Your task to perform on an android device: turn on improve location accuracy Image 0: 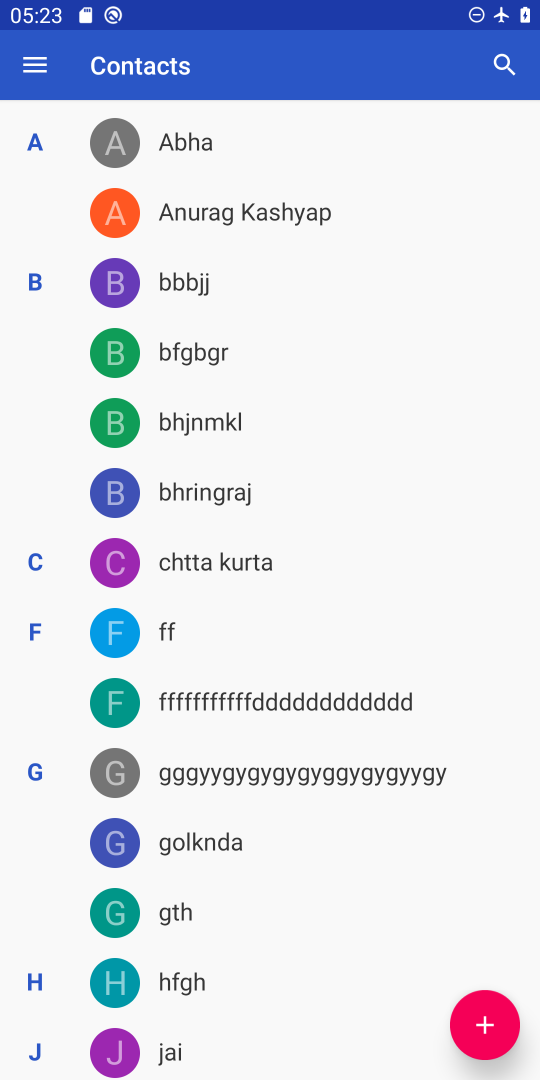
Step 0: press home button
Your task to perform on an android device: turn on improve location accuracy Image 1: 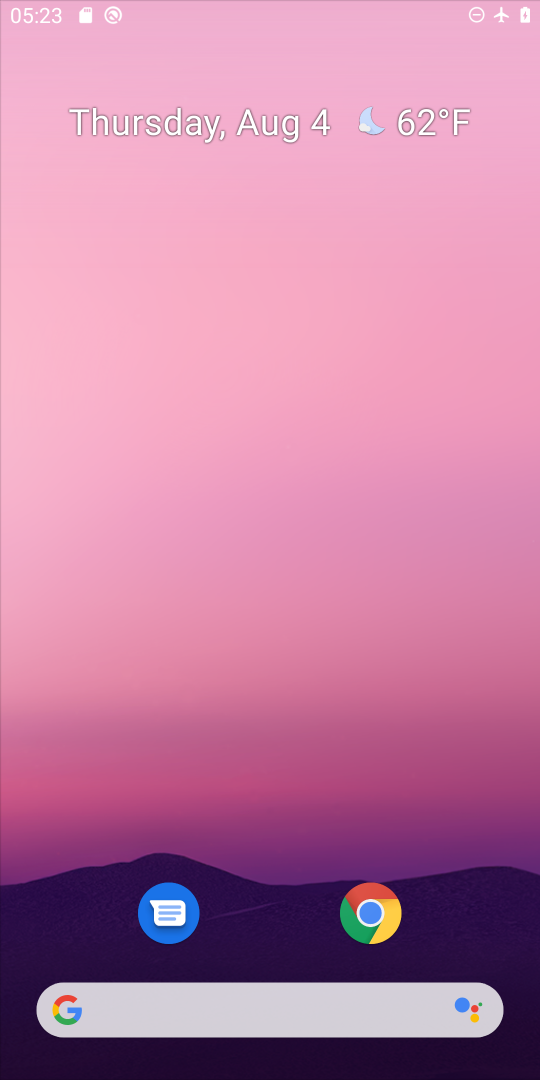
Step 1: drag from (309, 985) to (463, 13)
Your task to perform on an android device: turn on improve location accuracy Image 2: 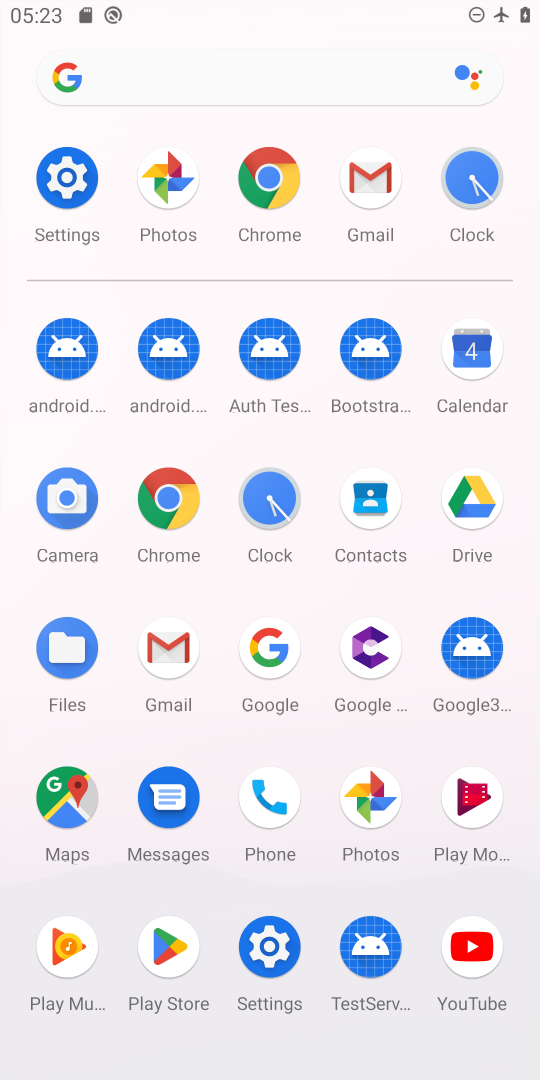
Step 2: click (46, 161)
Your task to perform on an android device: turn on improve location accuracy Image 3: 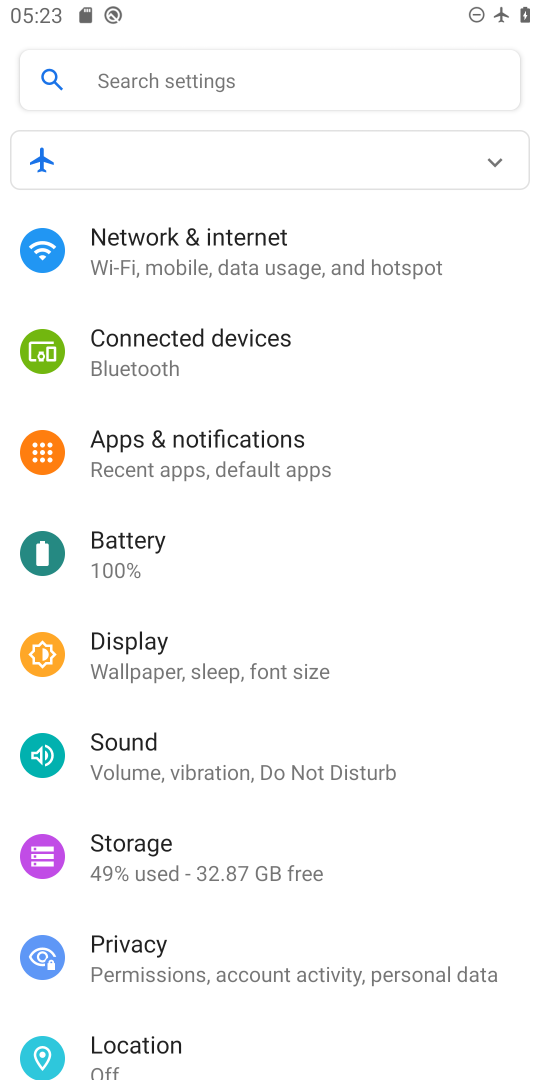
Step 3: drag from (180, 1051) to (323, 289)
Your task to perform on an android device: turn on improve location accuracy Image 4: 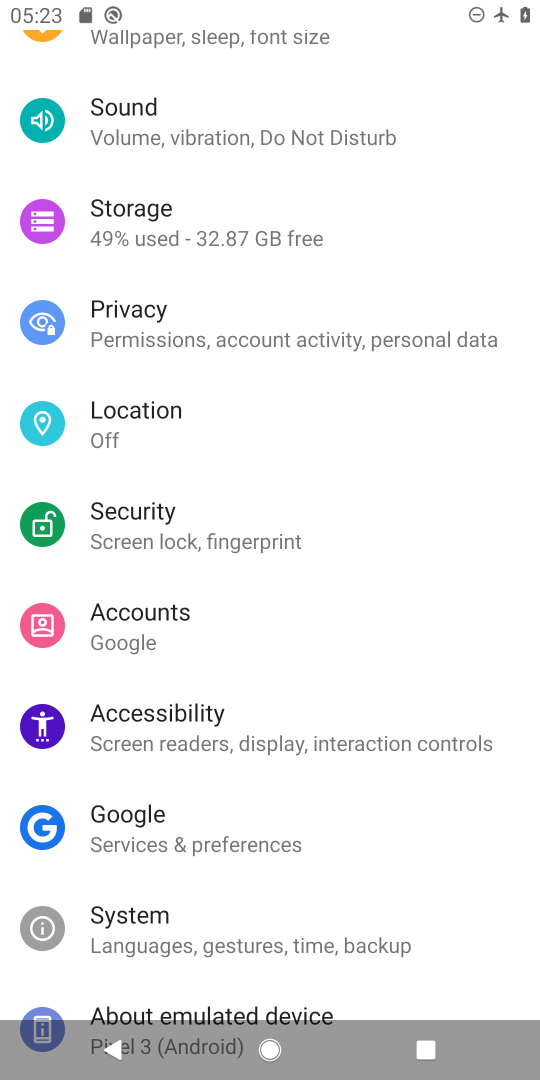
Step 4: click (145, 415)
Your task to perform on an android device: turn on improve location accuracy Image 5: 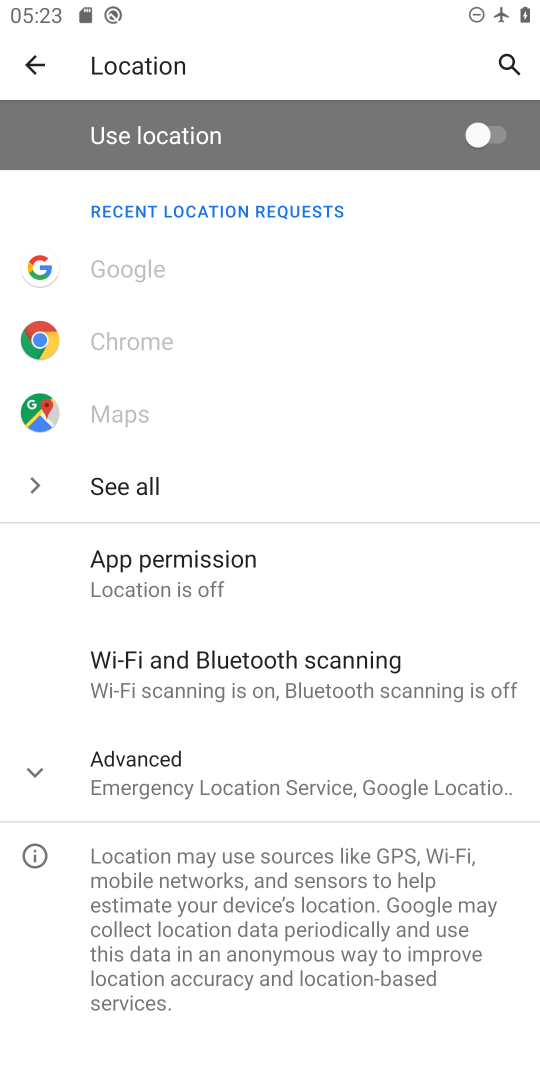
Step 5: click (275, 784)
Your task to perform on an android device: turn on improve location accuracy Image 6: 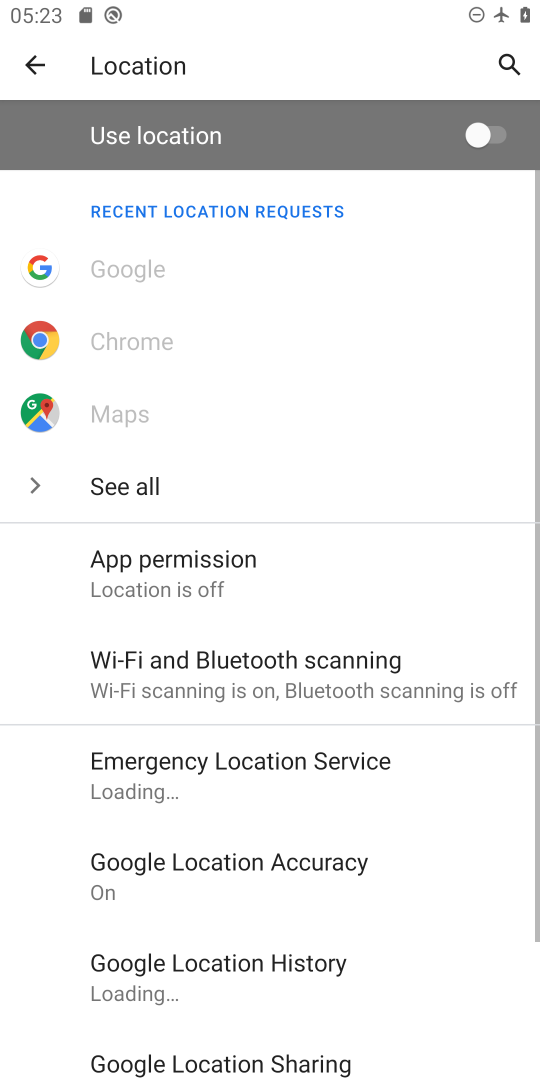
Step 6: click (294, 881)
Your task to perform on an android device: turn on improve location accuracy Image 7: 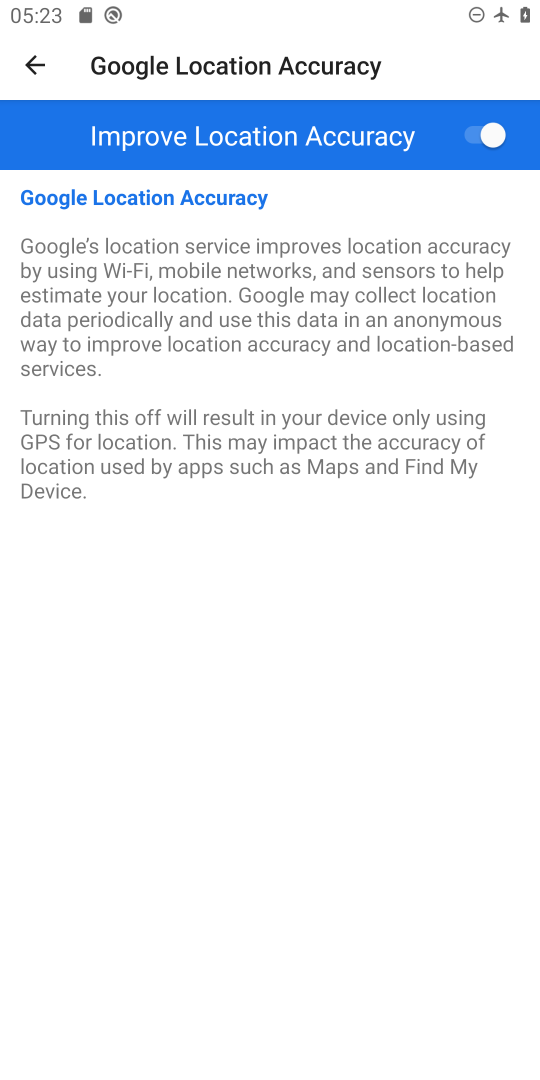
Step 7: task complete